Your task to perform on an android device: set the timer Image 0: 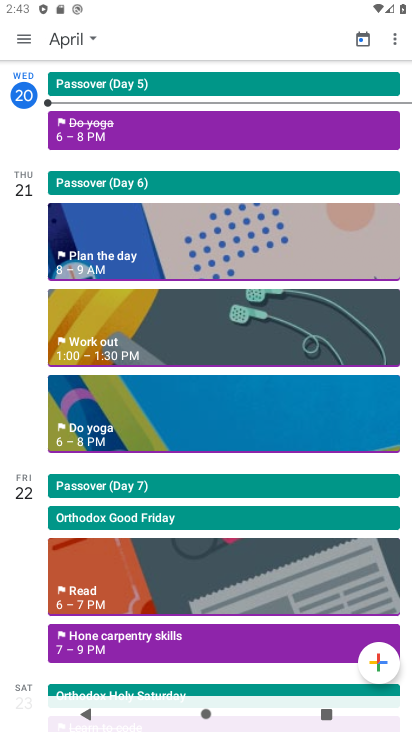
Step 0: press back button
Your task to perform on an android device: set the timer Image 1: 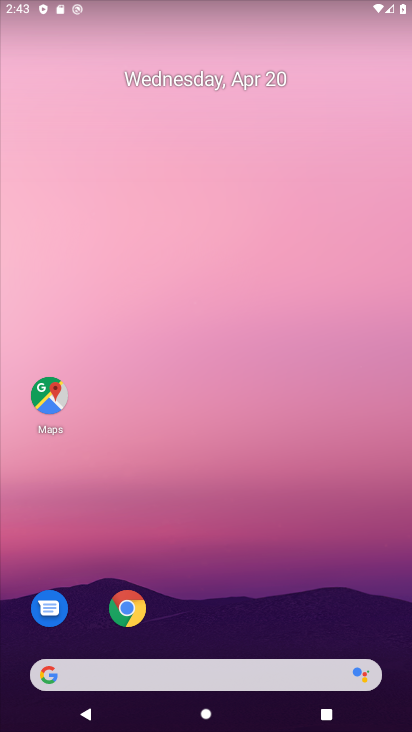
Step 1: drag from (203, 553) to (285, 113)
Your task to perform on an android device: set the timer Image 2: 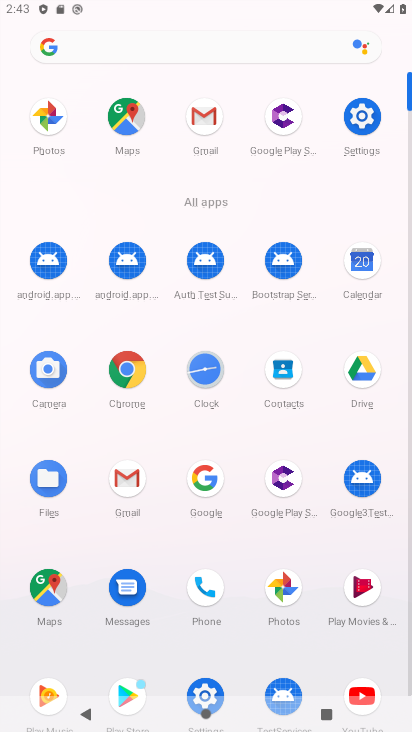
Step 2: click (205, 367)
Your task to perform on an android device: set the timer Image 3: 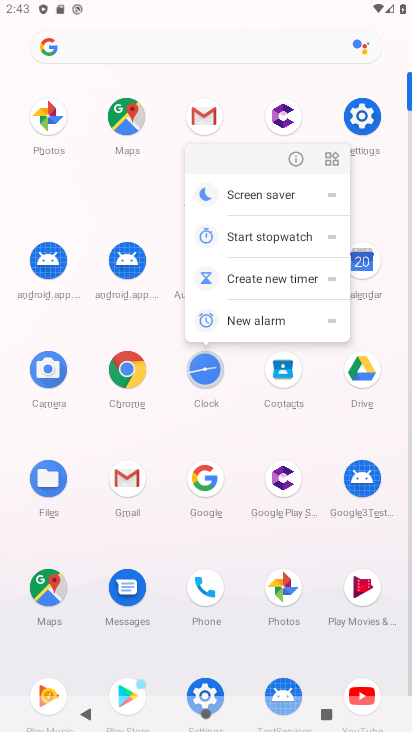
Step 3: click (206, 378)
Your task to perform on an android device: set the timer Image 4: 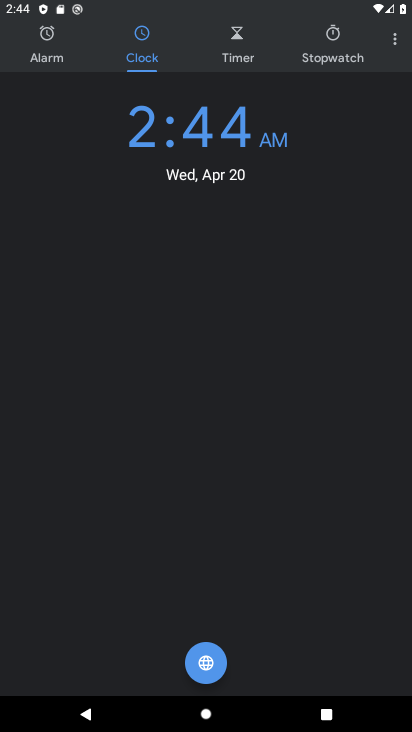
Step 4: click (240, 35)
Your task to perform on an android device: set the timer Image 5: 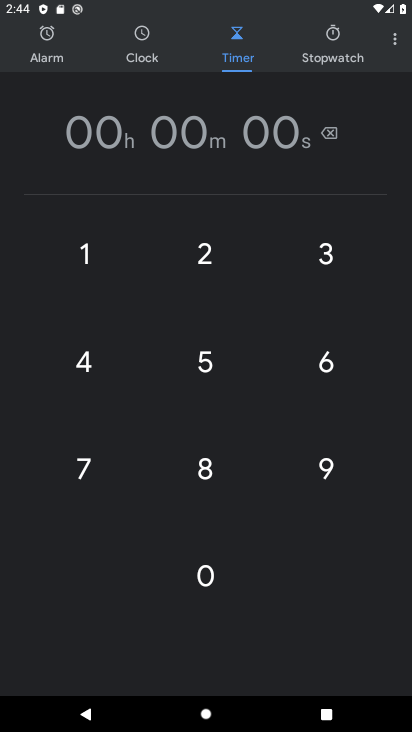
Step 5: drag from (197, 253) to (309, 244)
Your task to perform on an android device: set the timer Image 6: 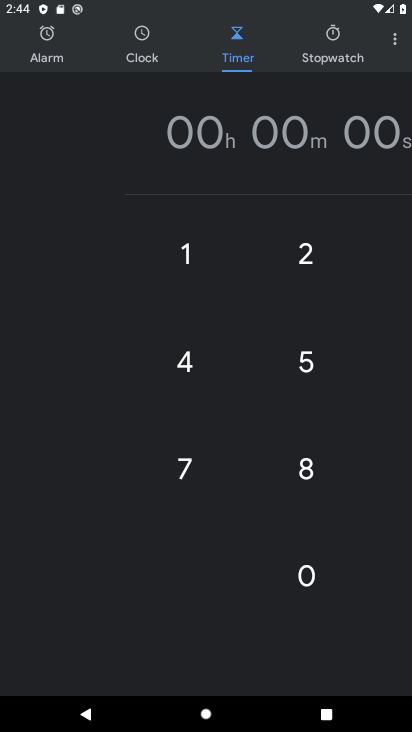
Step 6: drag from (190, 385) to (373, 360)
Your task to perform on an android device: set the timer Image 7: 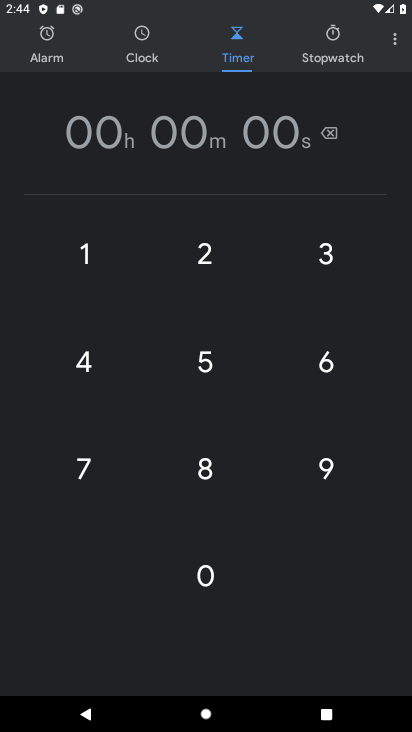
Step 7: click (253, 259)
Your task to perform on an android device: set the timer Image 8: 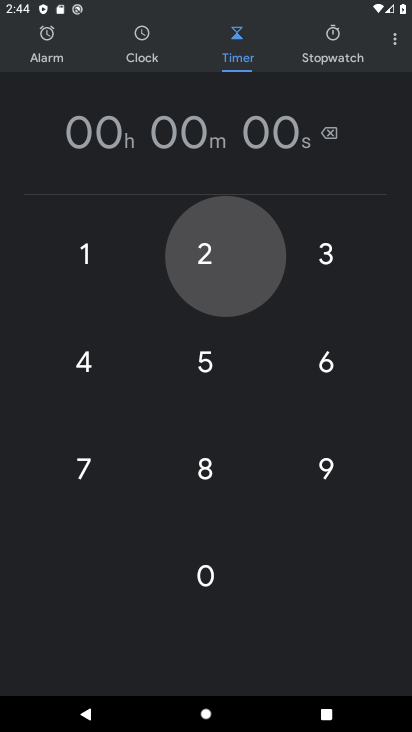
Step 8: click (313, 242)
Your task to perform on an android device: set the timer Image 9: 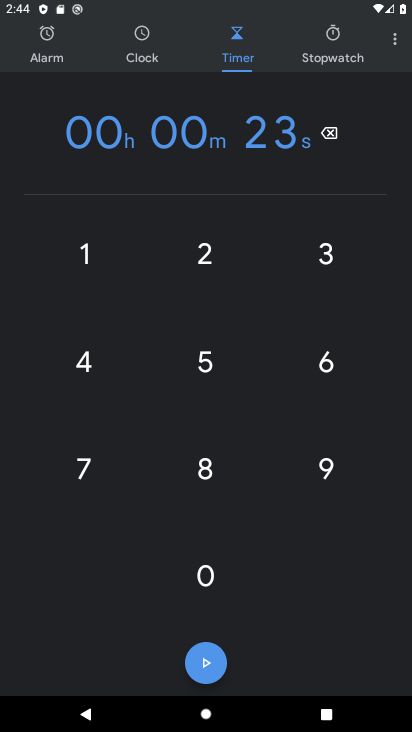
Step 9: click (217, 327)
Your task to perform on an android device: set the timer Image 10: 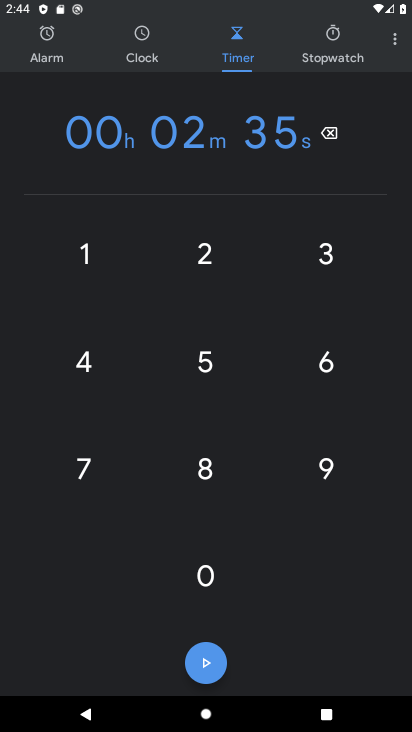
Step 10: click (225, 237)
Your task to perform on an android device: set the timer Image 11: 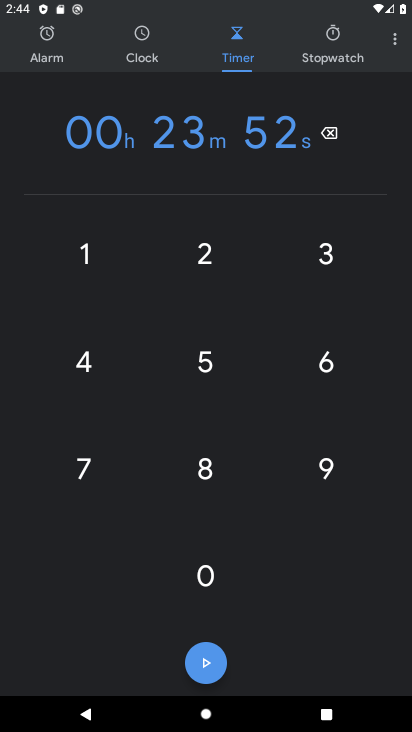
Step 11: task complete